Your task to perform on an android device: turn on priority inbox in the gmail app Image 0: 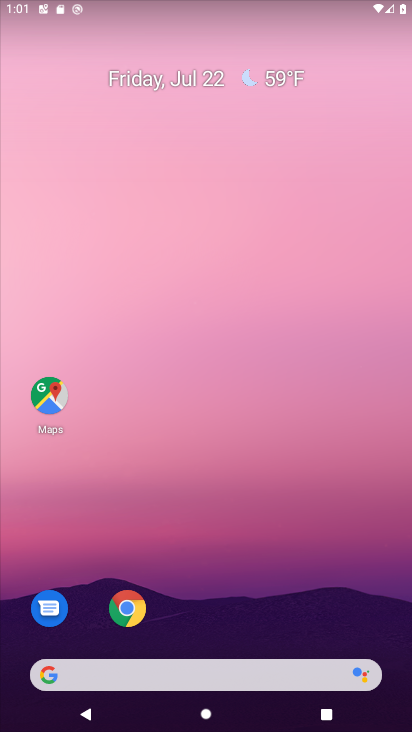
Step 0: drag from (204, 482) to (241, 4)
Your task to perform on an android device: turn on priority inbox in the gmail app Image 1: 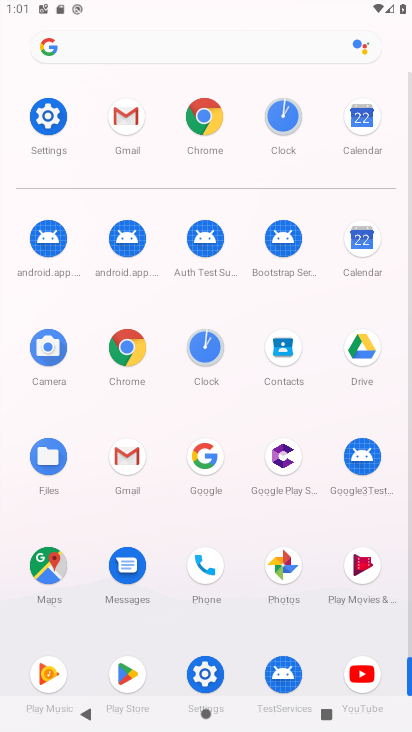
Step 1: click (134, 460)
Your task to perform on an android device: turn on priority inbox in the gmail app Image 2: 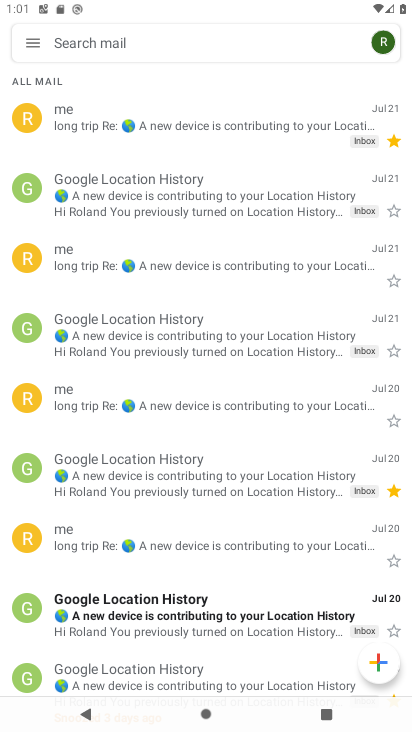
Step 2: click (31, 43)
Your task to perform on an android device: turn on priority inbox in the gmail app Image 3: 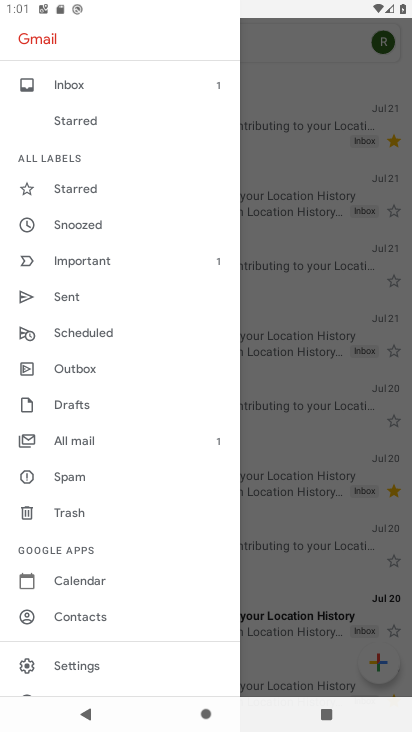
Step 3: click (83, 668)
Your task to perform on an android device: turn on priority inbox in the gmail app Image 4: 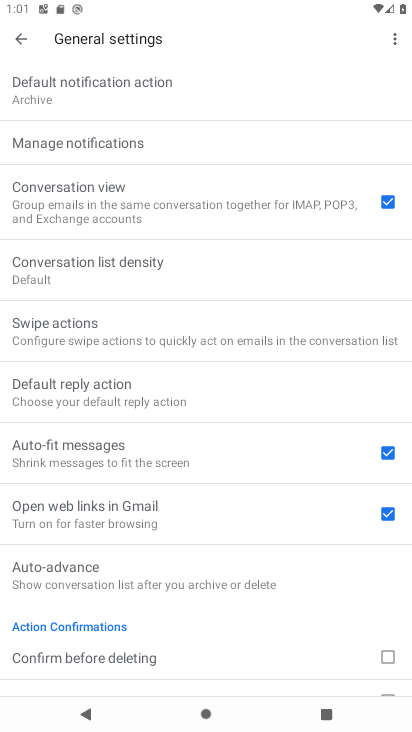
Step 4: click (12, 31)
Your task to perform on an android device: turn on priority inbox in the gmail app Image 5: 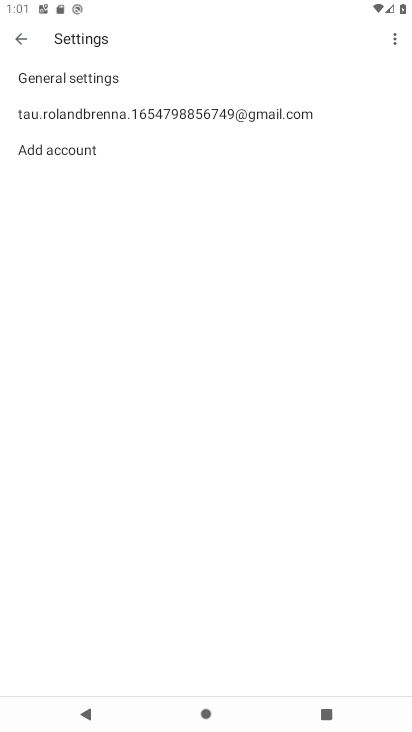
Step 5: click (75, 117)
Your task to perform on an android device: turn on priority inbox in the gmail app Image 6: 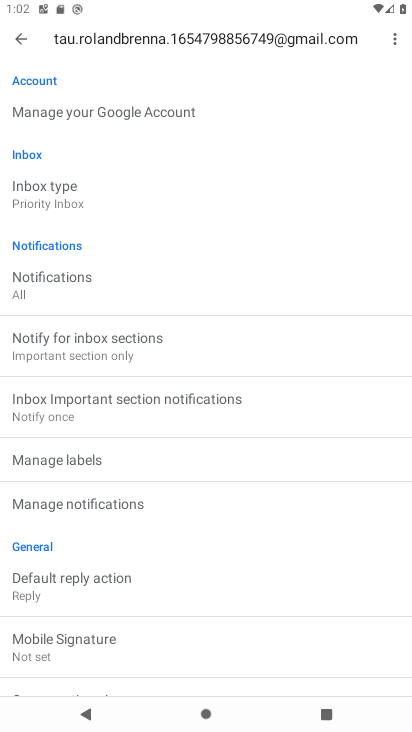
Step 6: task complete